Your task to perform on an android device: install app "LinkedIn" Image 0: 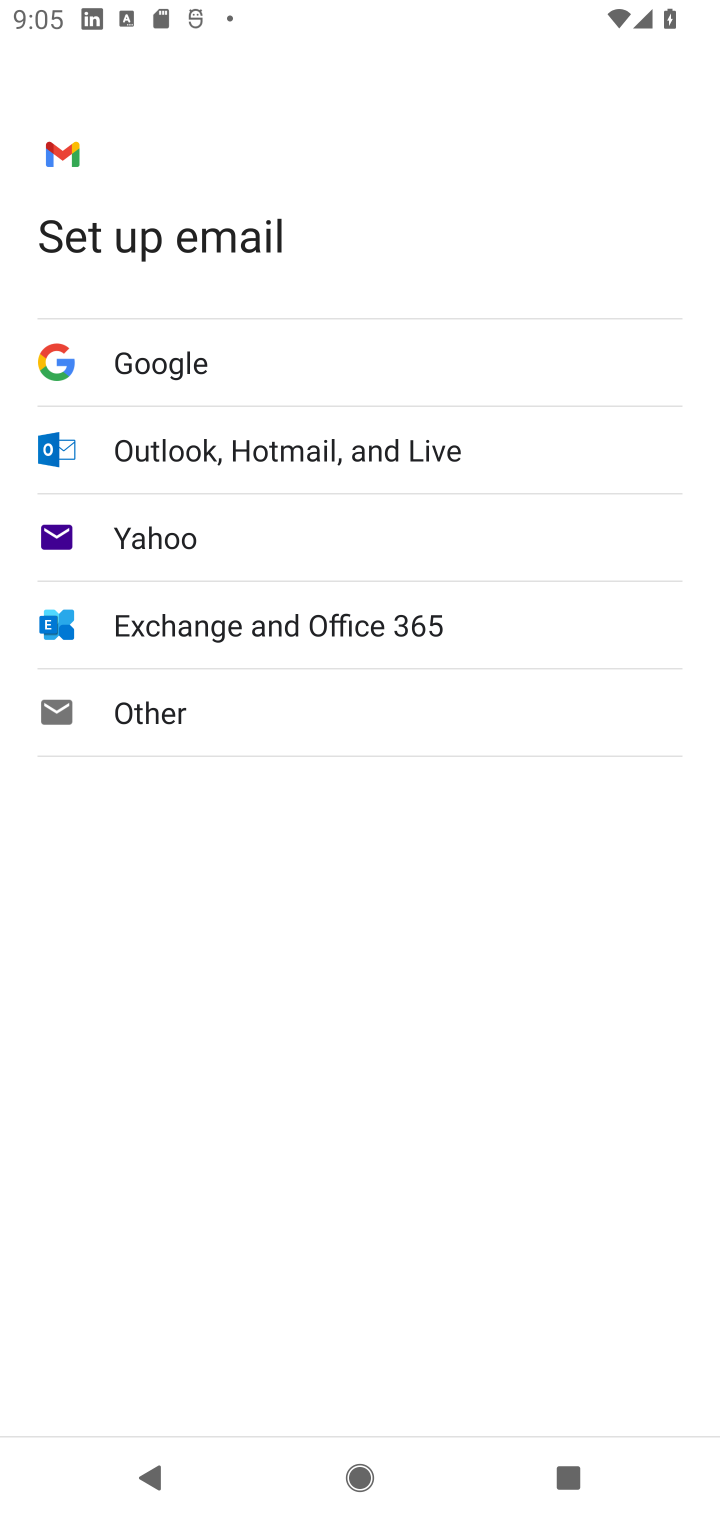
Step 0: press home button
Your task to perform on an android device: install app "LinkedIn" Image 1: 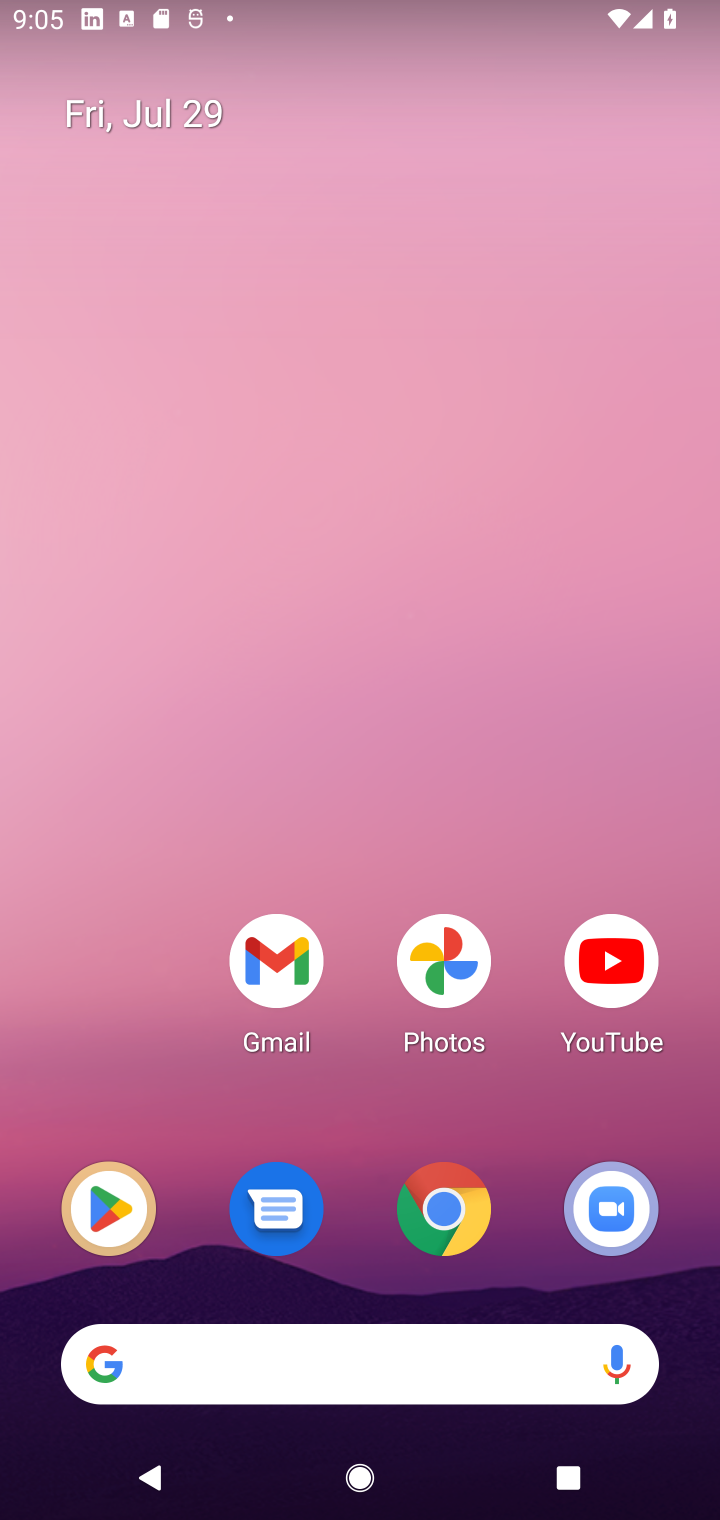
Step 1: click (121, 1205)
Your task to perform on an android device: install app "LinkedIn" Image 2: 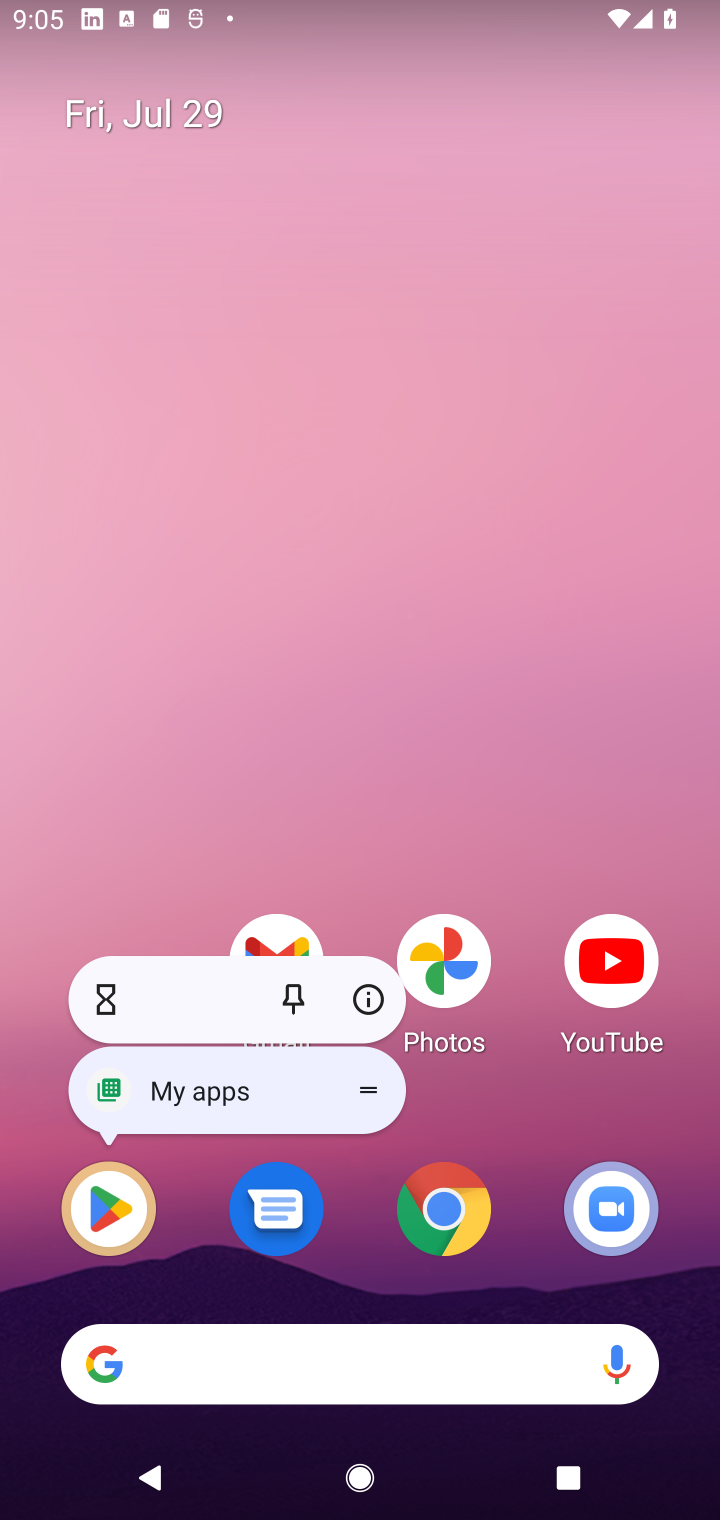
Step 2: click (130, 1218)
Your task to perform on an android device: install app "LinkedIn" Image 3: 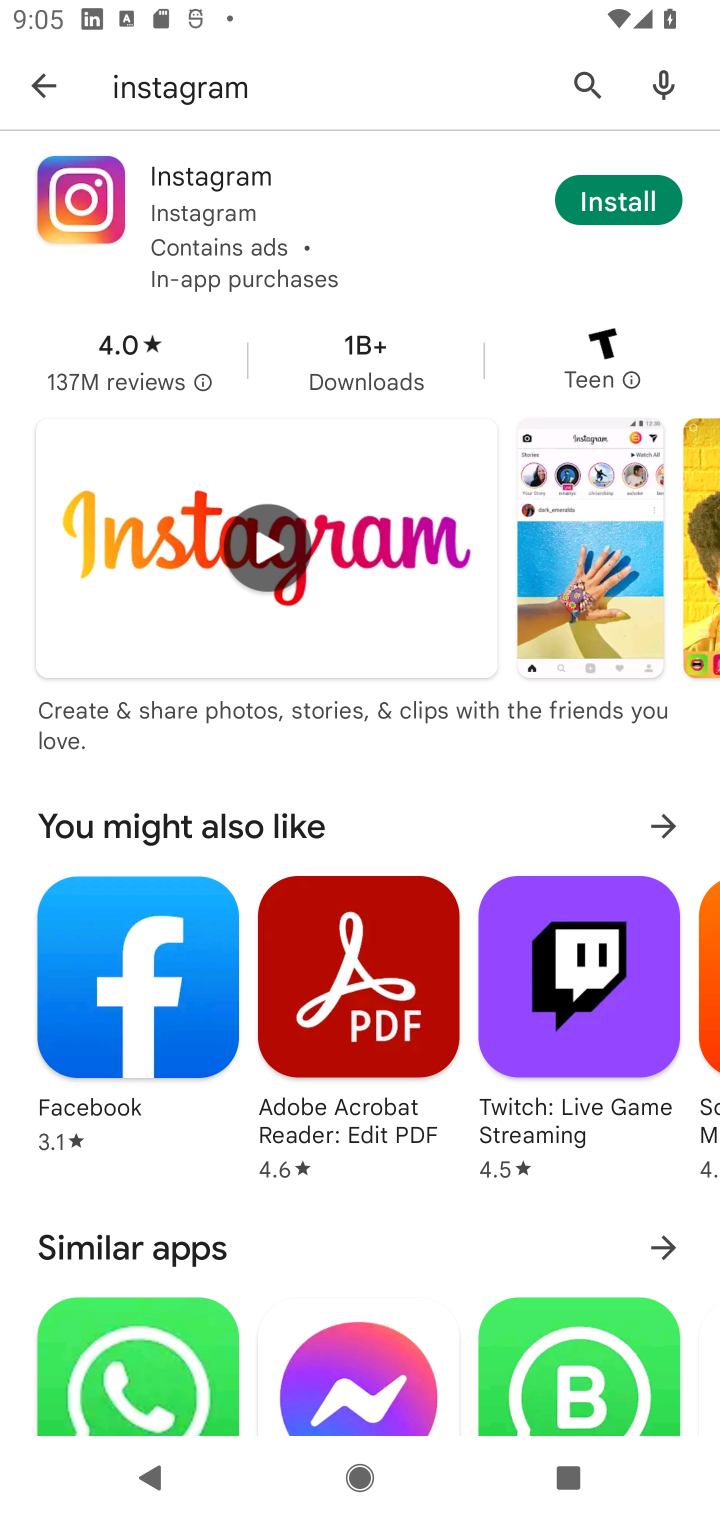
Step 3: click (587, 85)
Your task to perform on an android device: install app "LinkedIn" Image 4: 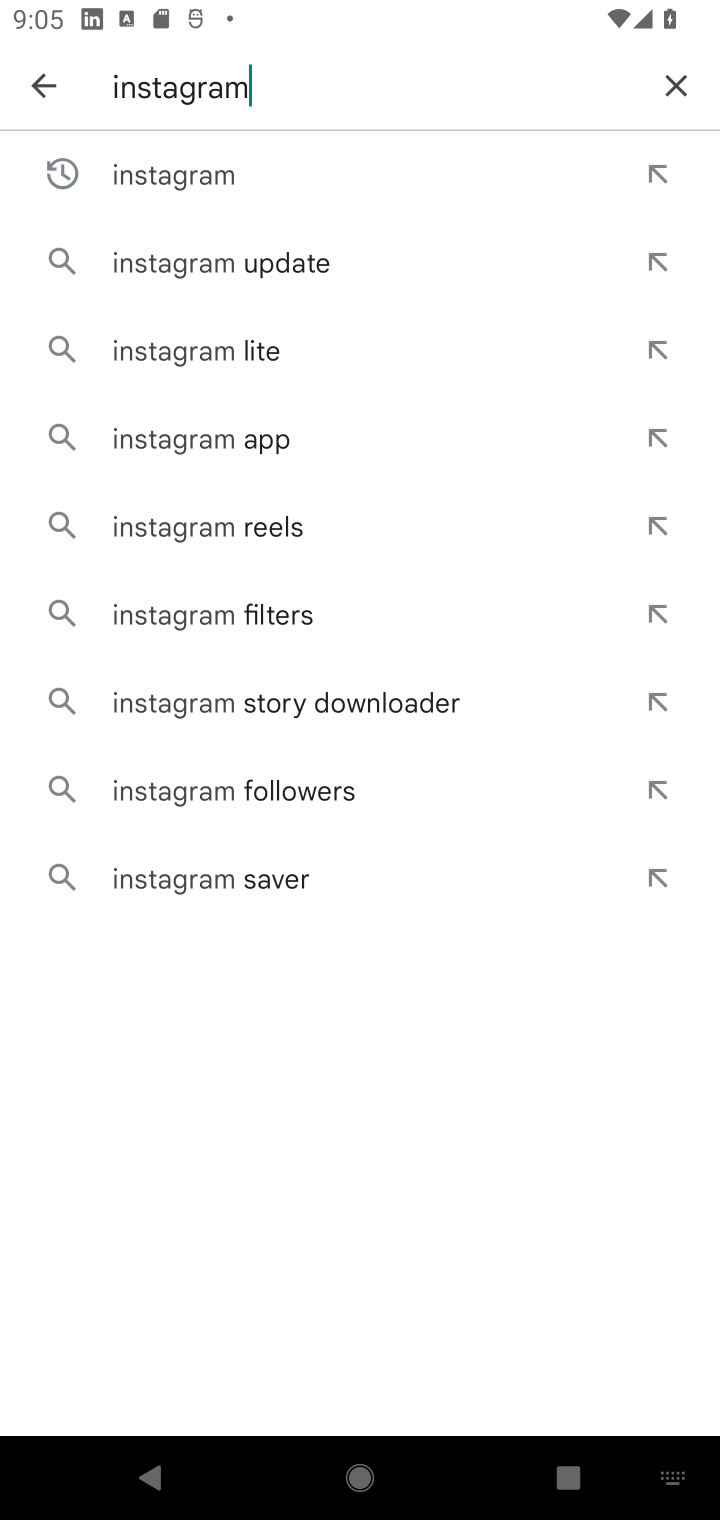
Step 4: click (668, 93)
Your task to perform on an android device: install app "LinkedIn" Image 5: 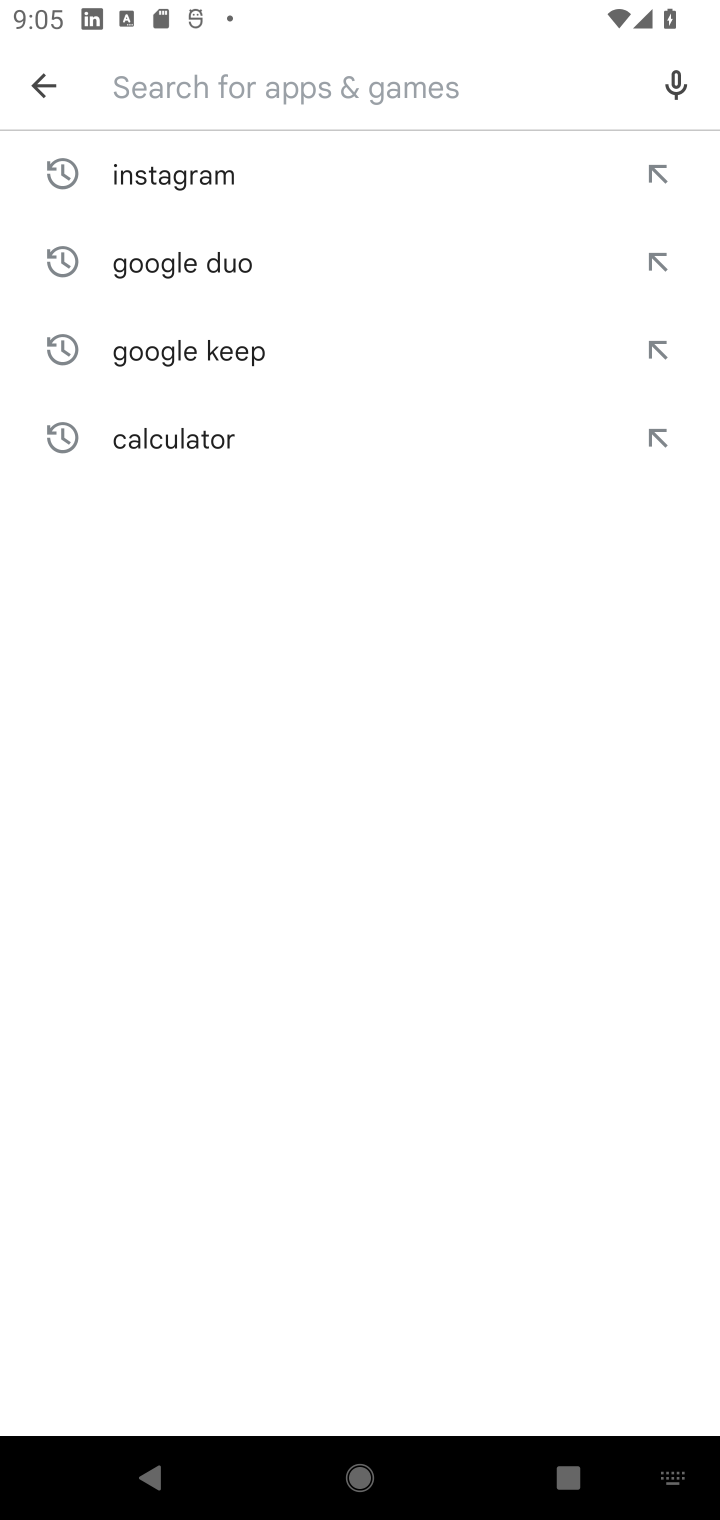
Step 5: type "LinkedIn"
Your task to perform on an android device: install app "LinkedIn" Image 6: 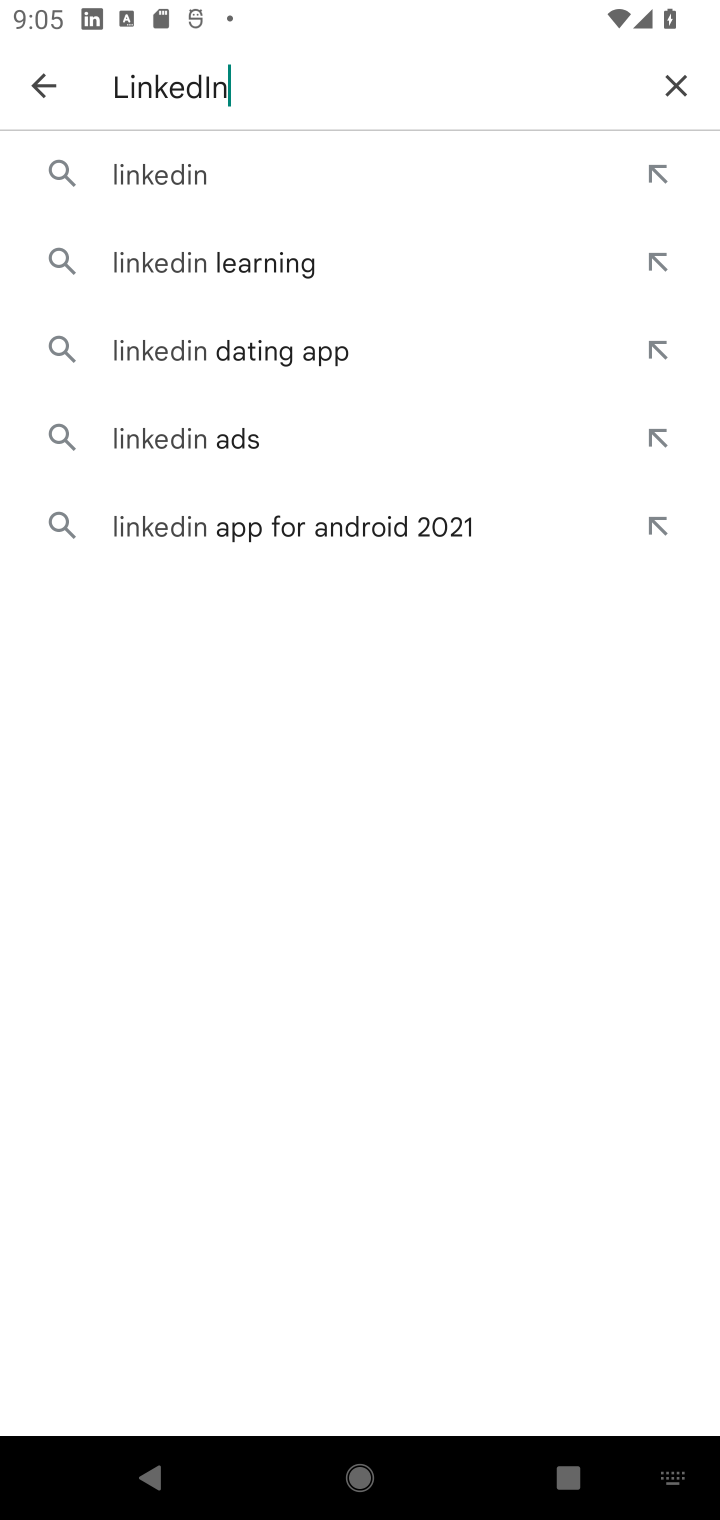
Step 6: click (189, 192)
Your task to perform on an android device: install app "LinkedIn" Image 7: 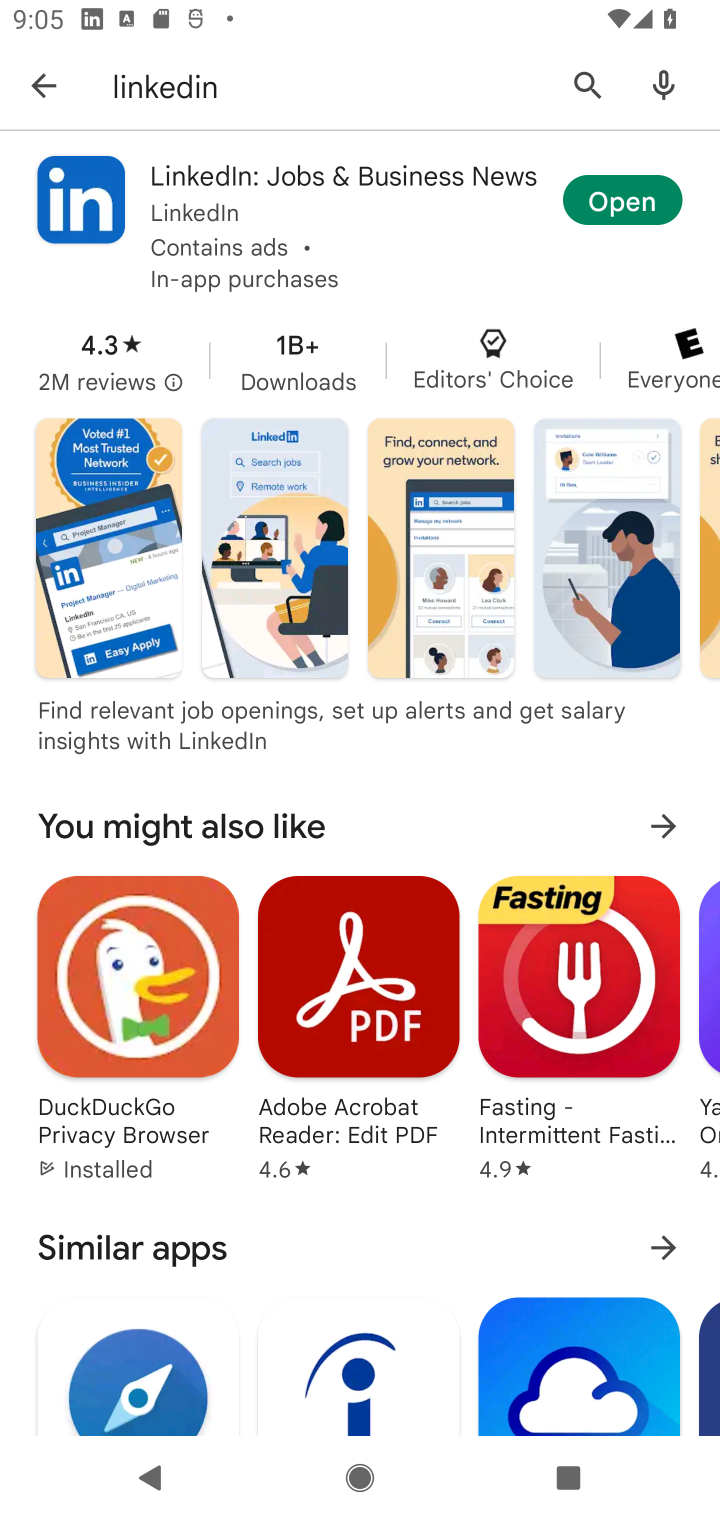
Step 7: task complete